Your task to perform on an android device: choose inbox layout in the gmail app Image 0: 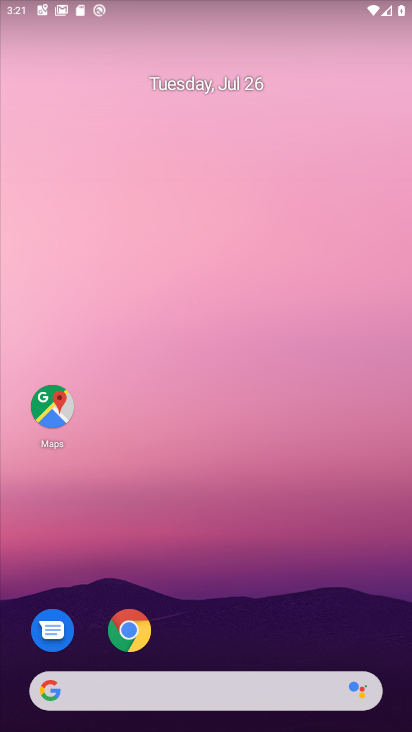
Step 0: drag from (191, 462) to (205, 21)
Your task to perform on an android device: choose inbox layout in the gmail app Image 1: 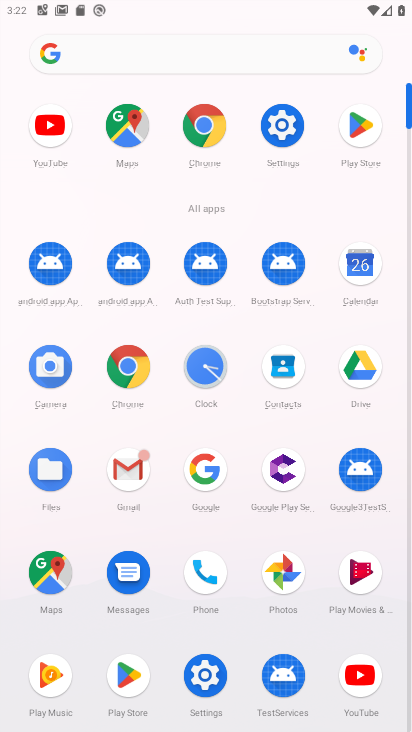
Step 1: click (138, 463)
Your task to perform on an android device: choose inbox layout in the gmail app Image 2: 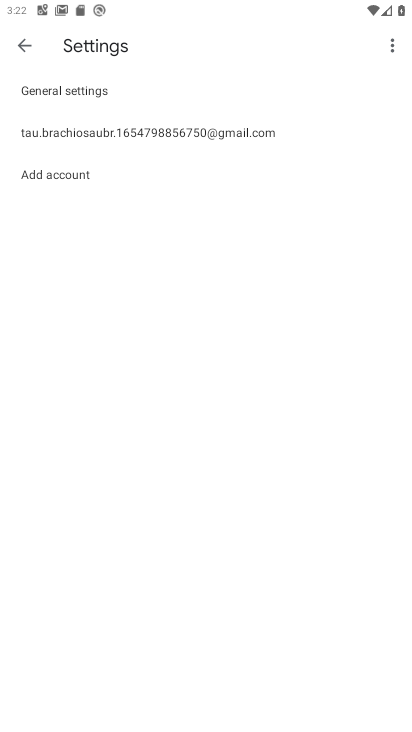
Step 2: click (227, 135)
Your task to perform on an android device: choose inbox layout in the gmail app Image 3: 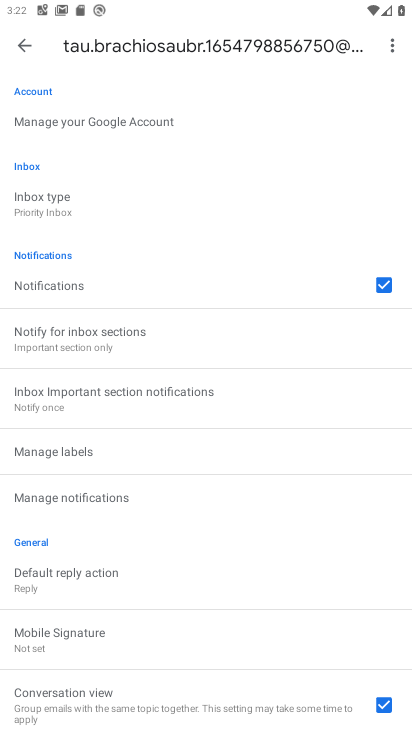
Step 3: click (91, 214)
Your task to perform on an android device: choose inbox layout in the gmail app Image 4: 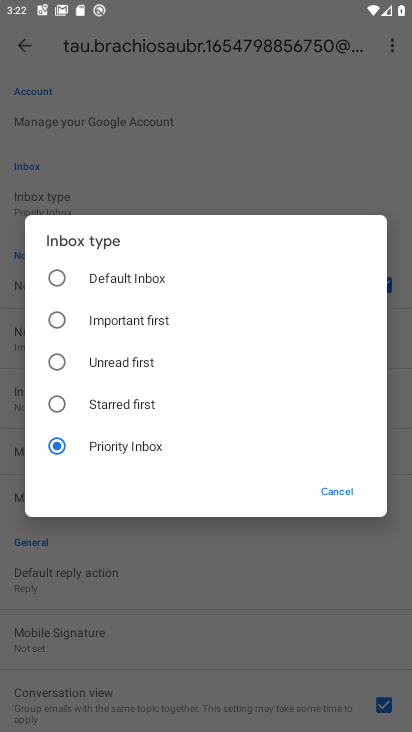
Step 4: click (136, 362)
Your task to perform on an android device: choose inbox layout in the gmail app Image 5: 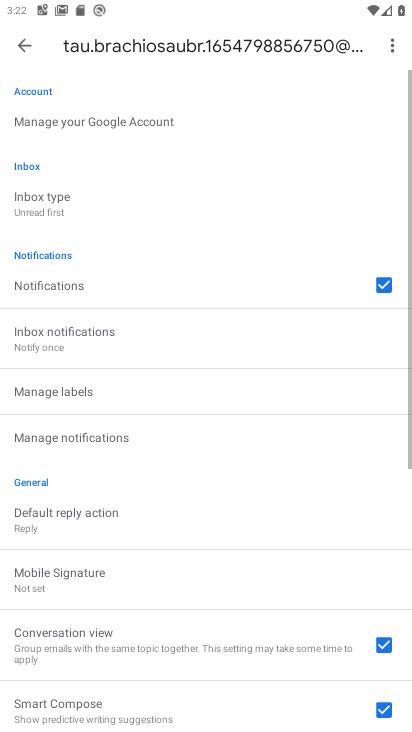
Step 5: task complete